Your task to perform on an android device: Open Reddit.com Image 0: 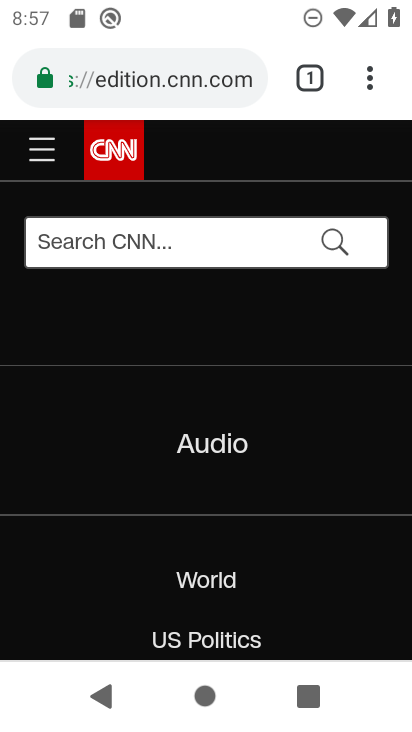
Step 0: press home button
Your task to perform on an android device: Open Reddit.com Image 1: 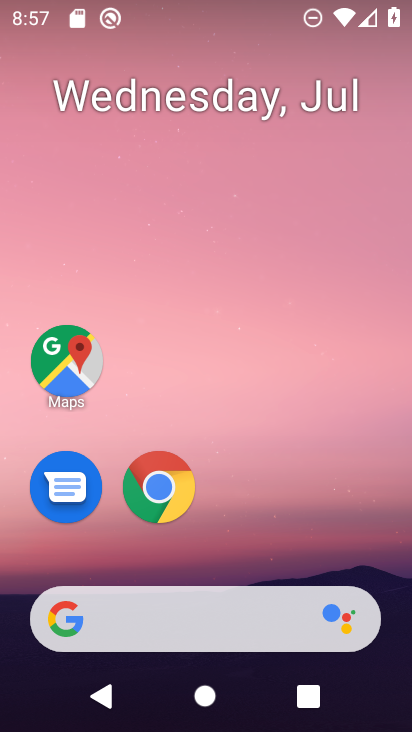
Step 1: drag from (297, 532) to (366, 107)
Your task to perform on an android device: Open Reddit.com Image 2: 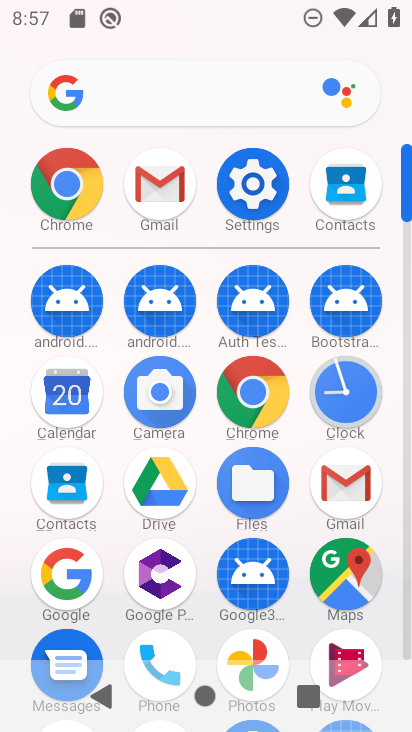
Step 2: click (268, 398)
Your task to perform on an android device: Open Reddit.com Image 3: 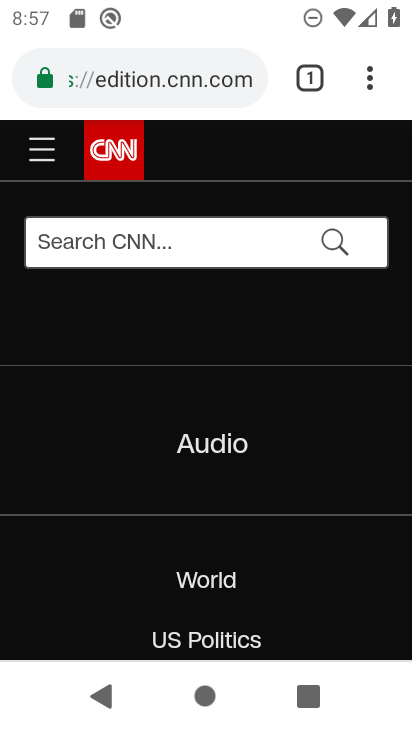
Step 3: click (213, 77)
Your task to perform on an android device: Open Reddit.com Image 4: 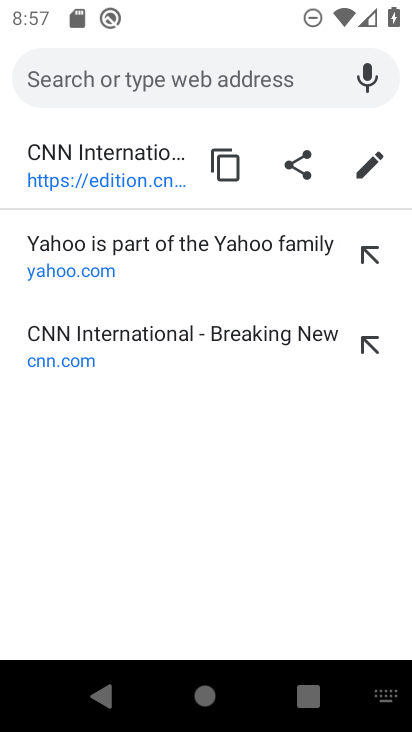
Step 4: type "reddit.com"
Your task to perform on an android device: Open Reddit.com Image 5: 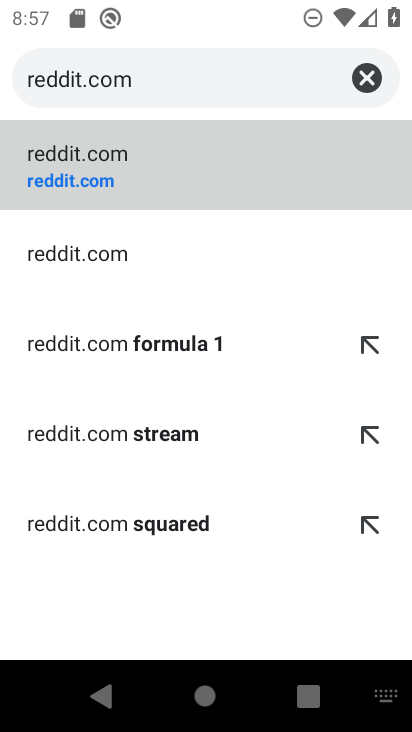
Step 5: click (342, 162)
Your task to perform on an android device: Open Reddit.com Image 6: 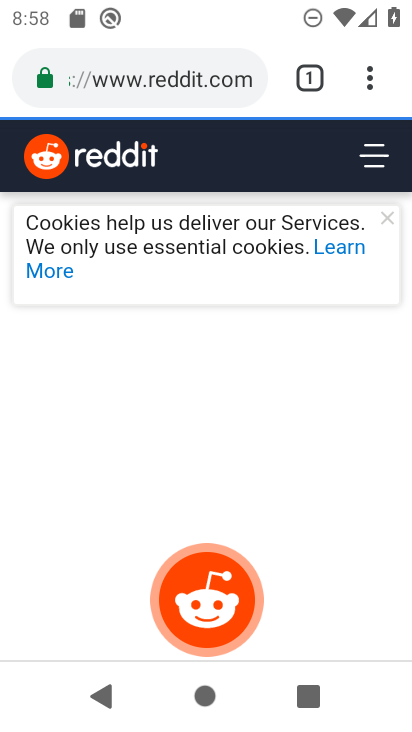
Step 6: task complete